Your task to perform on an android device: empty trash in the gmail app Image 0: 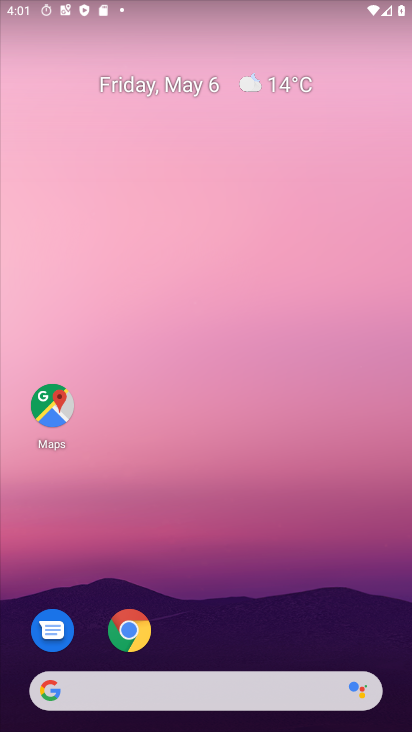
Step 0: drag from (233, 636) to (375, 0)
Your task to perform on an android device: empty trash in the gmail app Image 1: 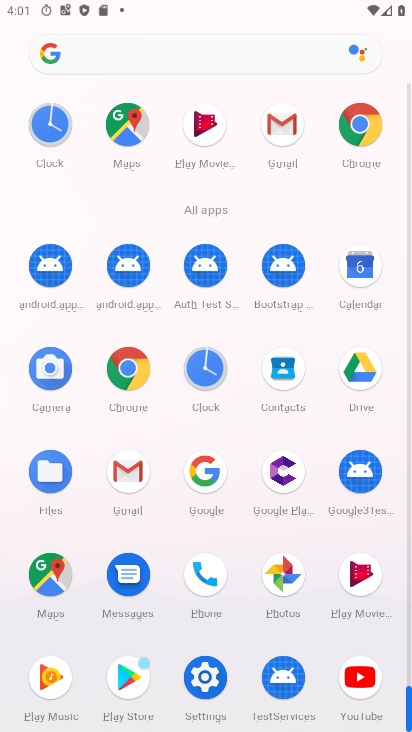
Step 1: click (283, 129)
Your task to perform on an android device: empty trash in the gmail app Image 2: 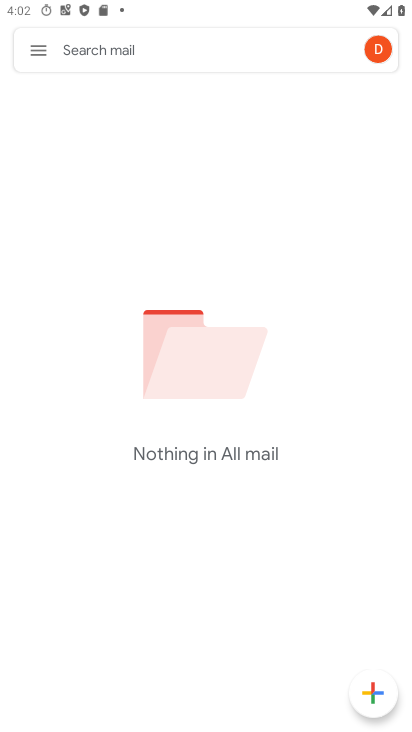
Step 2: click (38, 44)
Your task to perform on an android device: empty trash in the gmail app Image 3: 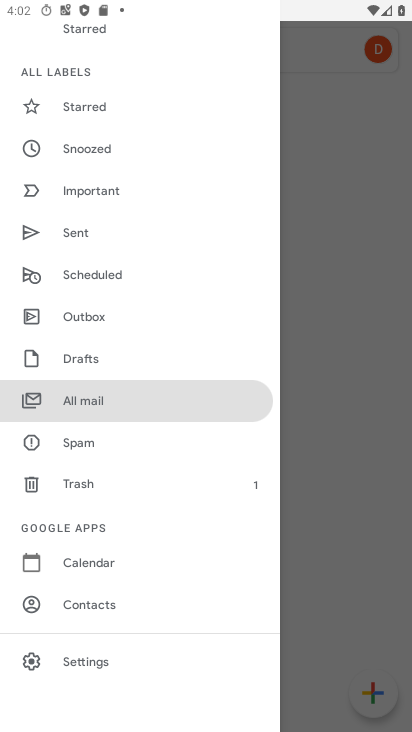
Step 3: click (151, 494)
Your task to perform on an android device: empty trash in the gmail app Image 4: 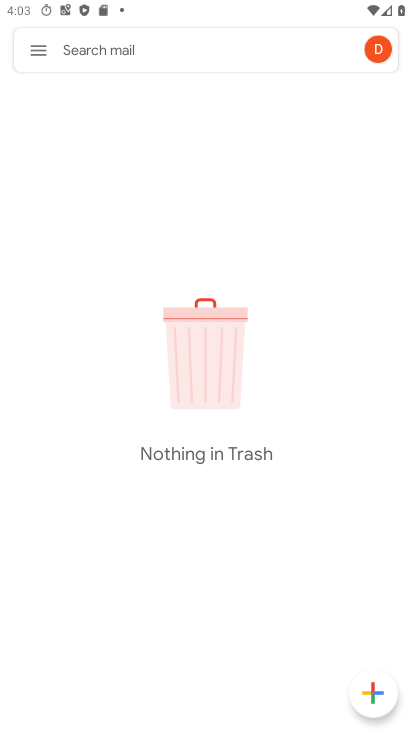
Step 4: task complete